Your task to perform on an android device: Open Google Chrome Image 0: 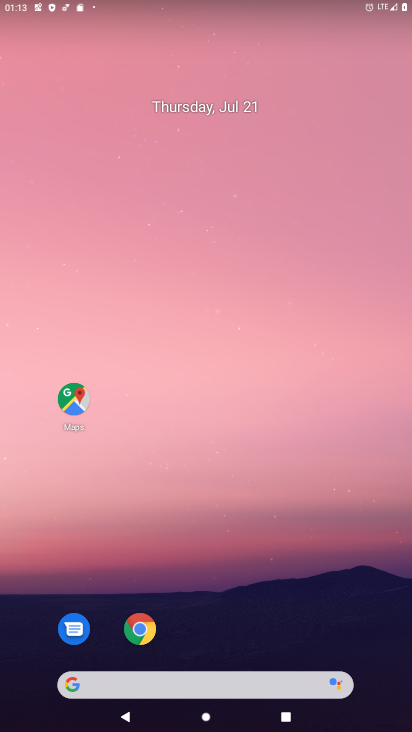
Step 0: drag from (266, 133) to (265, 61)
Your task to perform on an android device: Open Google Chrome Image 1: 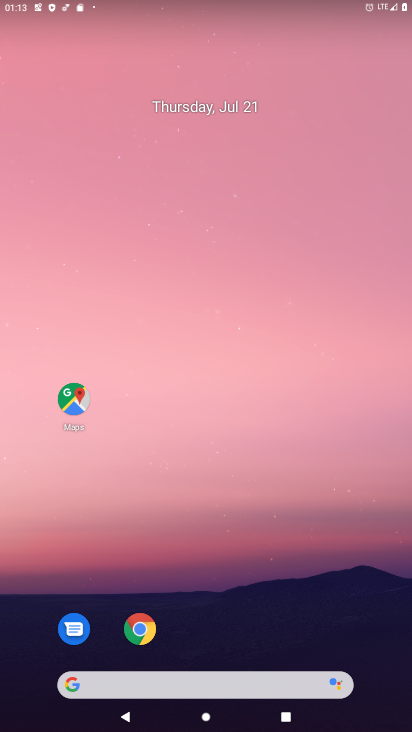
Step 1: drag from (246, 245) to (259, 95)
Your task to perform on an android device: Open Google Chrome Image 2: 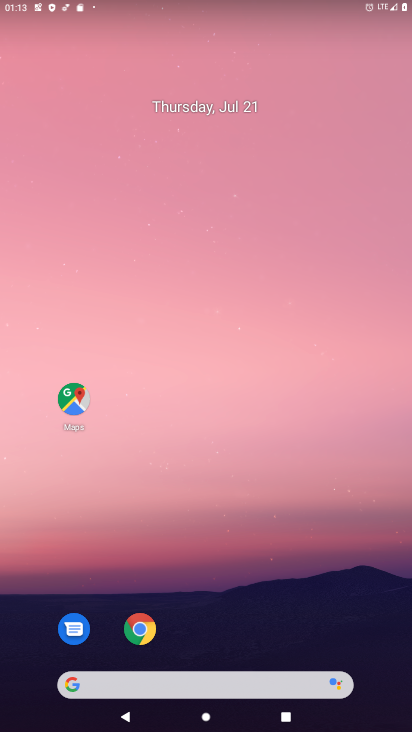
Step 2: drag from (266, 621) to (279, 84)
Your task to perform on an android device: Open Google Chrome Image 3: 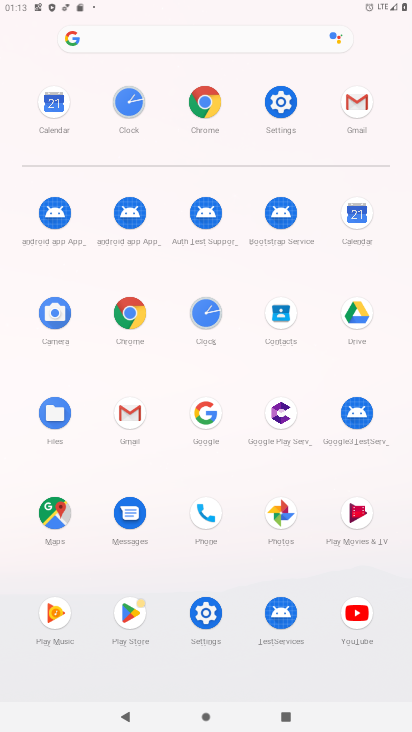
Step 3: click (209, 103)
Your task to perform on an android device: Open Google Chrome Image 4: 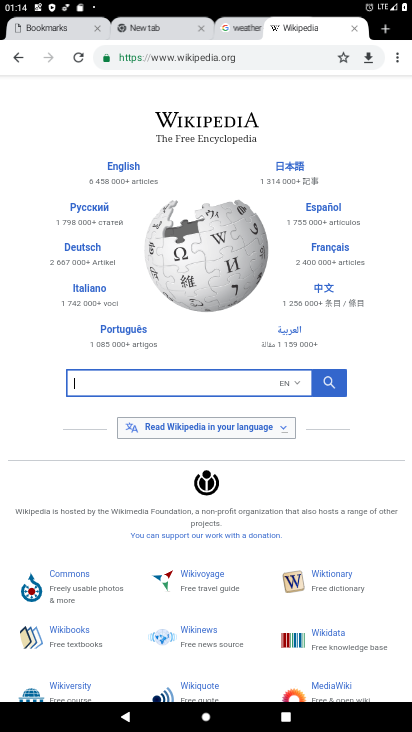
Step 4: task complete